Your task to perform on an android device: make emails show in primary in the gmail app Image 0: 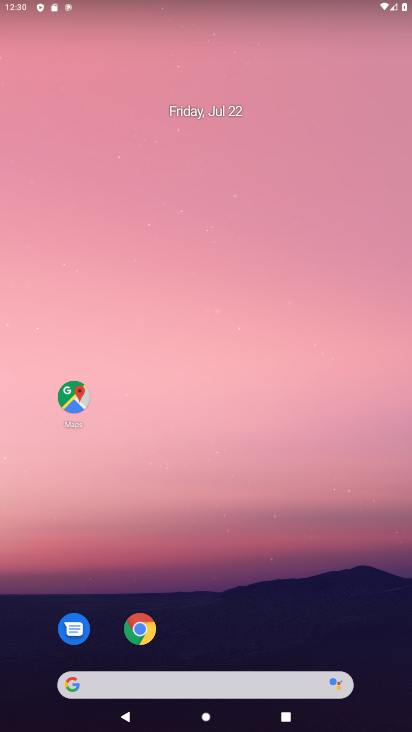
Step 0: drag from (204, 646) to (234, 69)
Your task to perform on an android device: make emails show in primary in the gmail app Image 1: 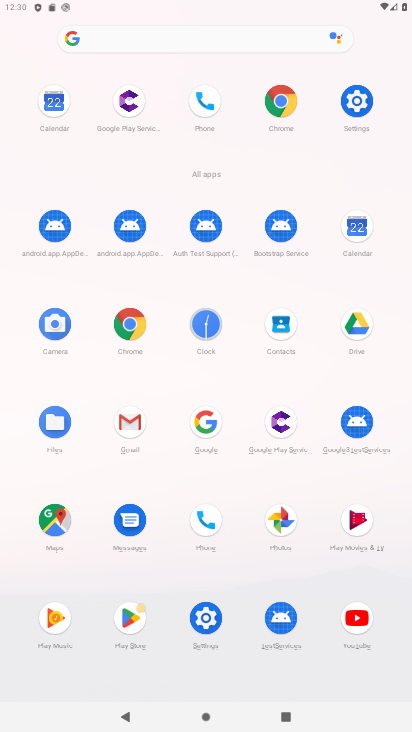
Step 1: click (128, 425)
Your task to perform on an android device: make emails show in primary in the gmail app Image 2: 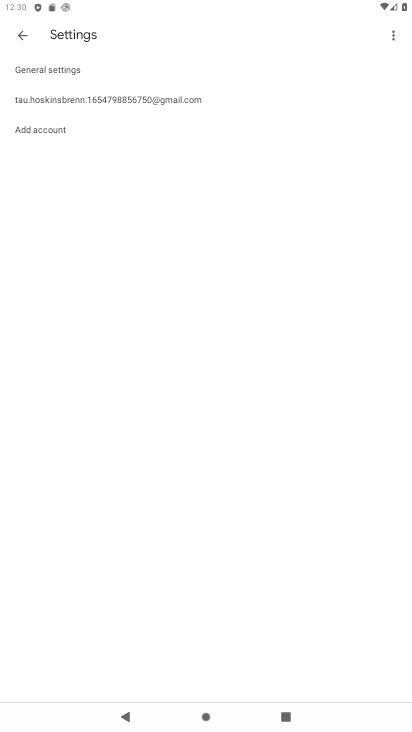
Step 2: click (71, 96)
Your task to perform on an android device: make emails show in primary in the gmail app Image 3: 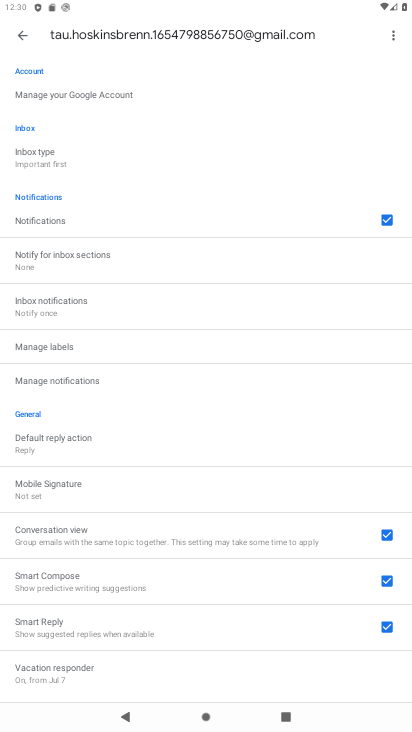
Step 3: drag from (64, 97) to (85, 339)
Your task to perform on an android device: make emails show in primary in the gmail app Image 4: 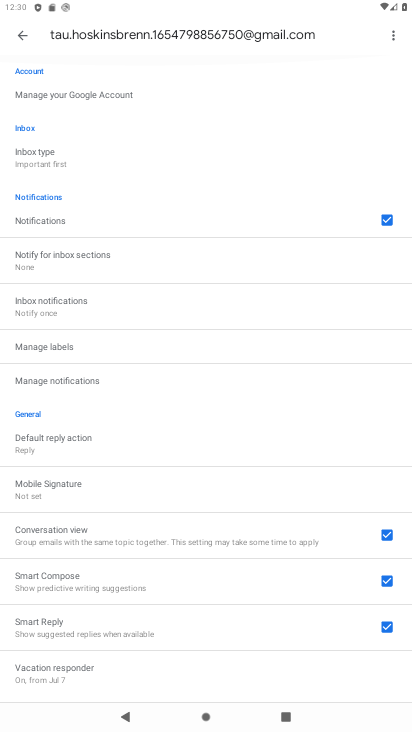
Step 4: click (47, 158)
Your task to perform on an android device: make emails show in primary in the gmail app Image 5: 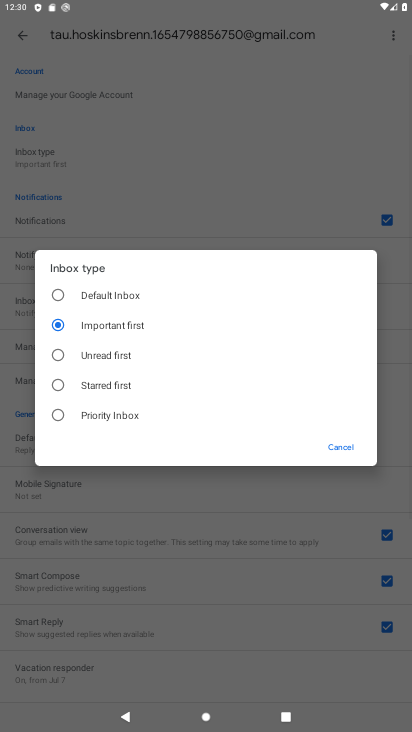
Step 5: click (54, 298)
Your task to perform on an android device: make emails show in primary in the gmail app Image 6: 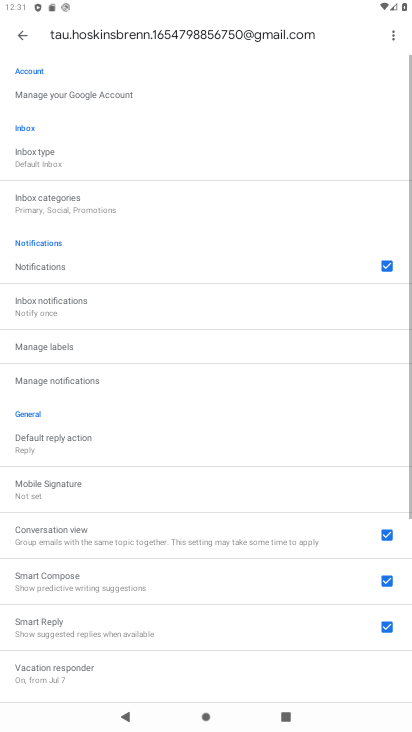
Step 6: click (65, 209)
Your task to perform on an android device: make emails show in primary in the gmail app Image 7: 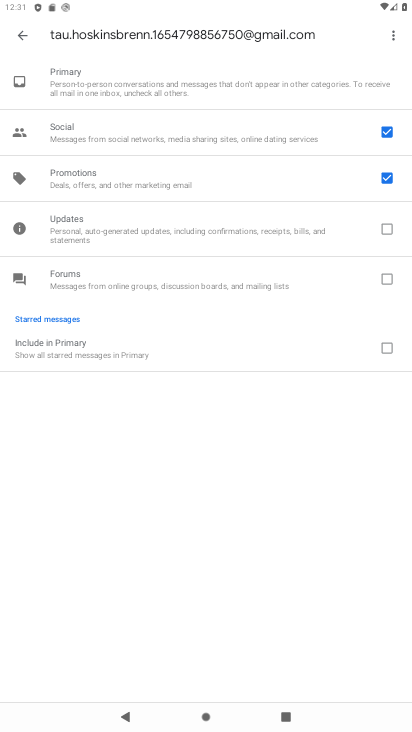
Step 7: click (387, 178)
Your task to perform on an android device: make emails show in primary in the gmail app Image 8: 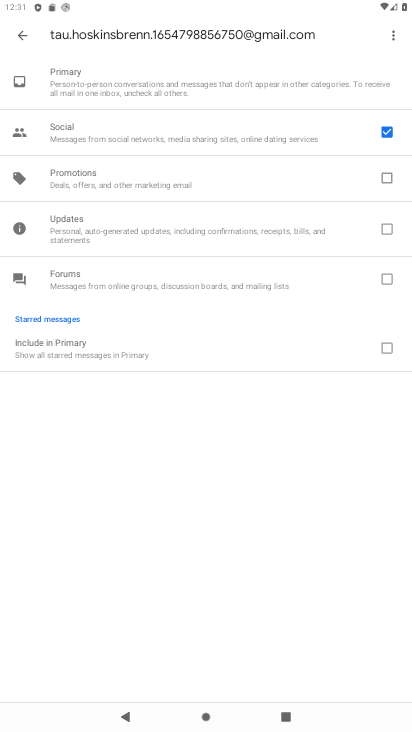
Step 8: click (391, 135)
Your task to perform on an android device: make emails show in primary in the gmail app Image 9: 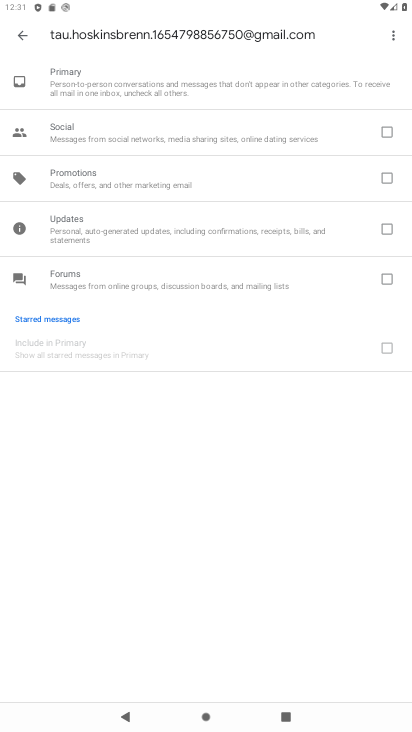
Step 9: task complete